Your task to perform on an android device: move a message to another label in the gmail app Image 0: 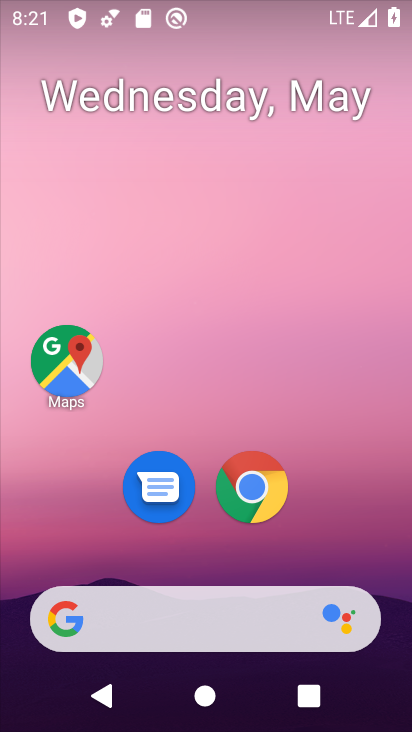
Step 0: drag from (194, 556) to (203, 131)
Your task to perform on an android device: move a message to another label in the gmail app Image 1: 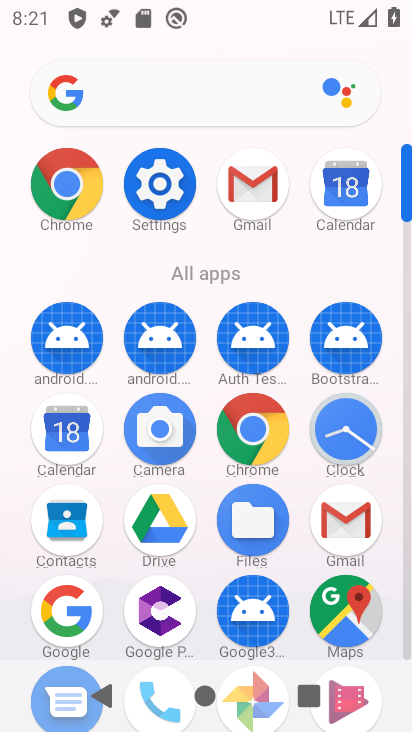
Step 1: click (238, 200)
Your task to perform on an android device: move a message to another label in the gmail app Image 2: 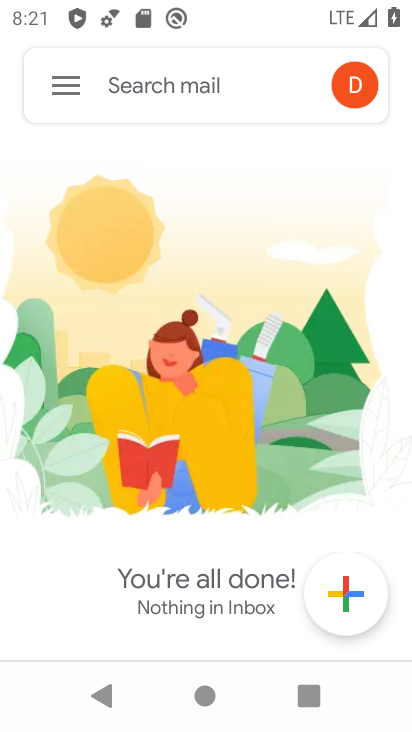
Step 2: click (53, 97)
Your task to perform on an android device: move a message to another label in the gmail app Image 3: 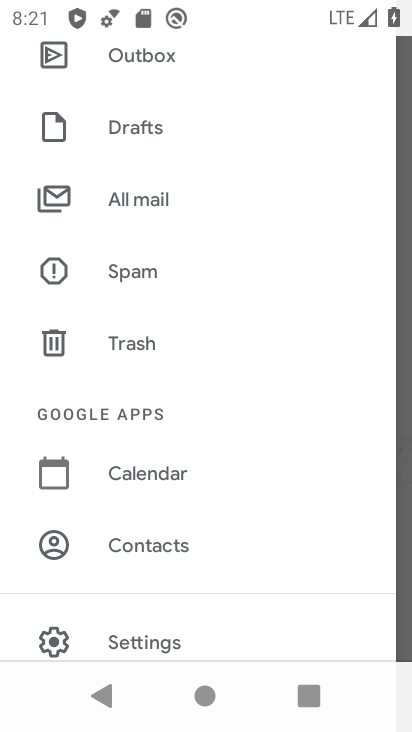
Step 3: click (124, 210)
Your task to perform on an android device: move a message to another label in the gmail app Image 4: 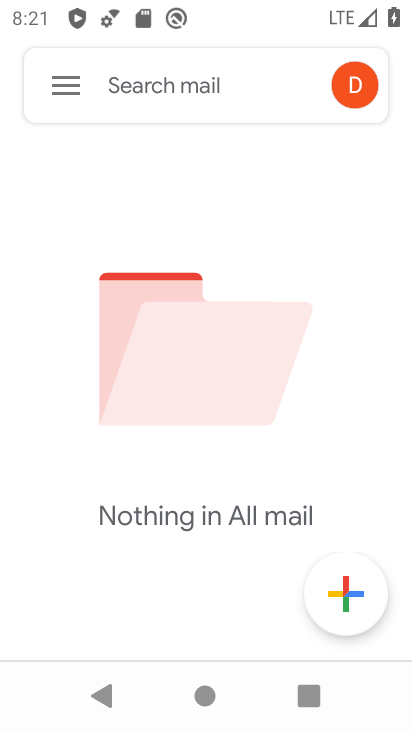
Step 4: task complete